Your task to perform on an android device: View the shopping cart on newegg. Search for "asus rog" on newegg, select the first entry, add it to the cart, then select checkout. Image 0: 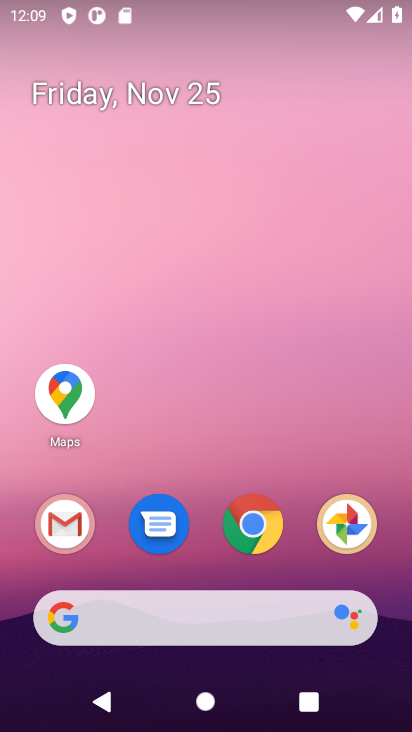
Step 0: click (249, 529)
Your task to perform on an android device: View the shopping cart on newegg. Search for "asus rog" on newegg, select the first entry, add it to the cart, then select checkout. Image 1: 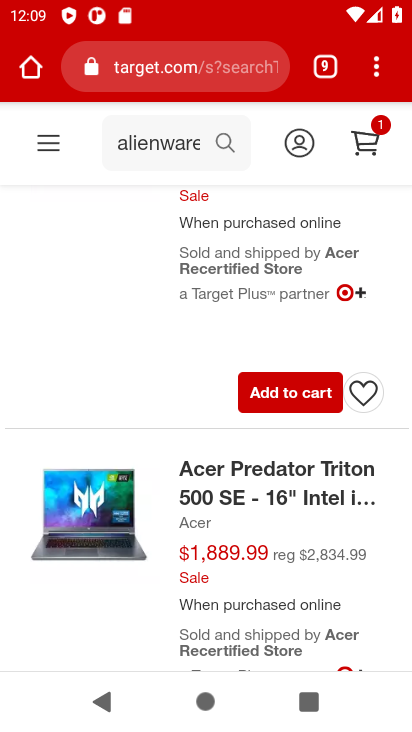
Step 1: click (158, 76)
Your task to perform on an android device: View the shopping cart on newegg. Search for "asus rog" on newegg, select the first entry, add it to the cart, then select checkout. Image 2: 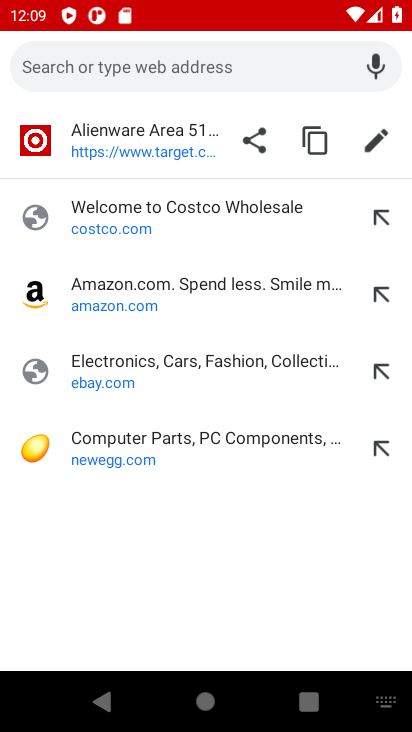
Step 2: click (91, 452)
Your task to perform on an android device: View the shopping cart on newegg. Search for "asus rog" on newegg, select the first entry, add it to the cart, then select checkout. Image 3: 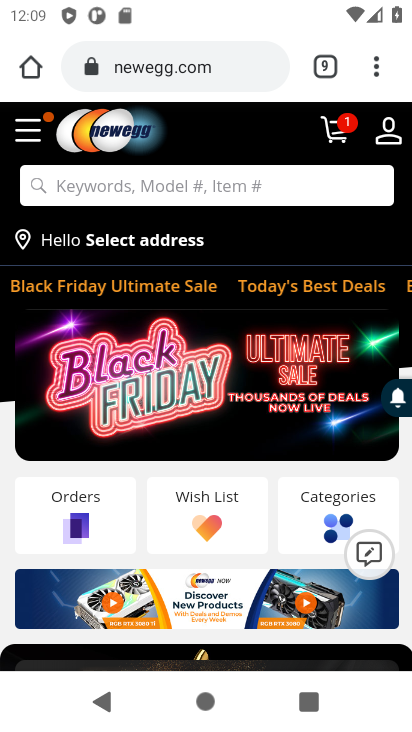
Step 3: click (339, 132)
Your task to perform on an android device: View the shopping cart on newegg. Search for "asus rog" on newegg, select the first entry, add it to the cart, then select checkout. Image 4: 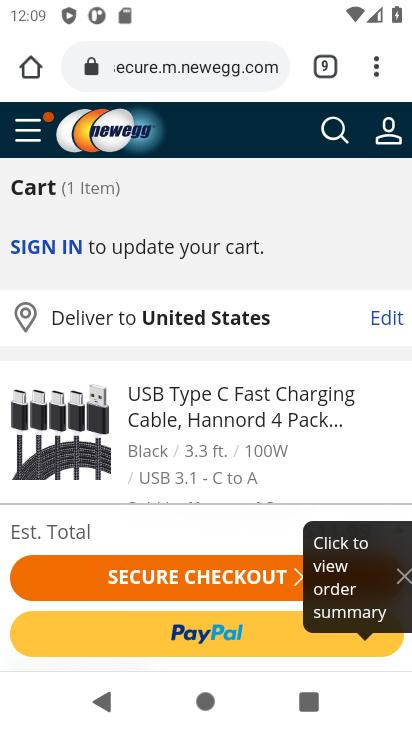
Step 4: drag from (208, 393) to (242, 190)
Your task to perform on an android device: View the shopping cart on newegg. Search for "asus rog" on newegg, select the first entry, add it to the cart, then select checkout. Image 5: 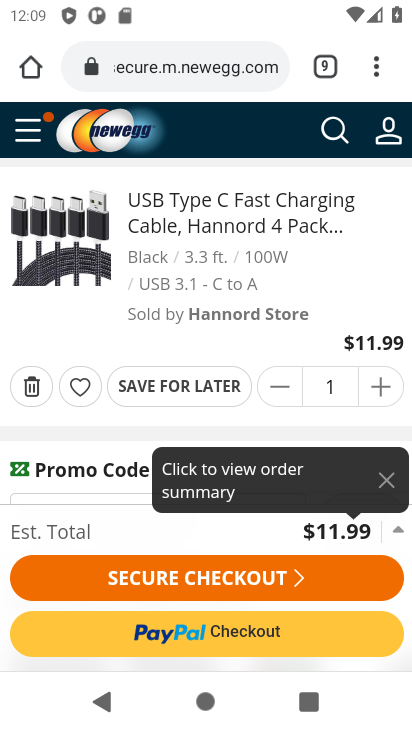
Step 5: click (336, 126)
Your task to perform on an android device: View the shopping cart on newegg. Search for "asus rog" on newegg, select the first entry, add it to the cart, then select checkout. Image 6: 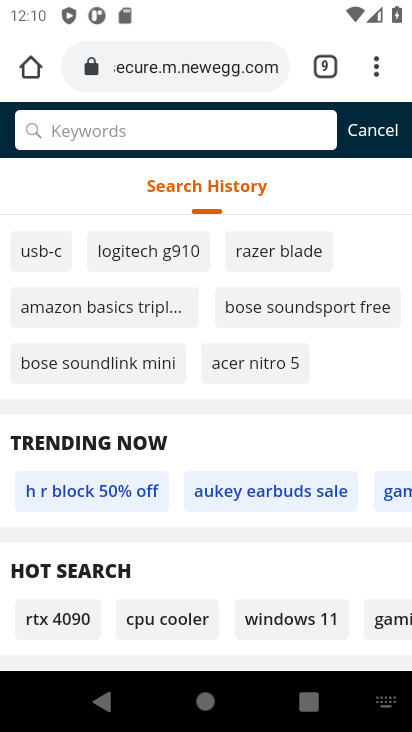
Step 6: type "asus rog"
Your task to perform on an android device: View the shopping cart on newegg. Search for "asus rog" on newegg, select the first entry, add it to the cart, then select checkout. Image 7: 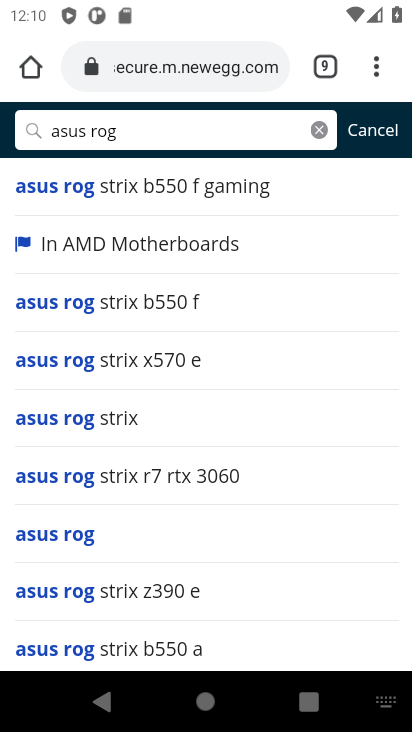
Step 7: click (67, 532)
Your task to perform on an android device: View the shopping cart on newegg. Search for "asus rog" on newegg, select the first entry, add it to the cart, then select checkout. Image 8: 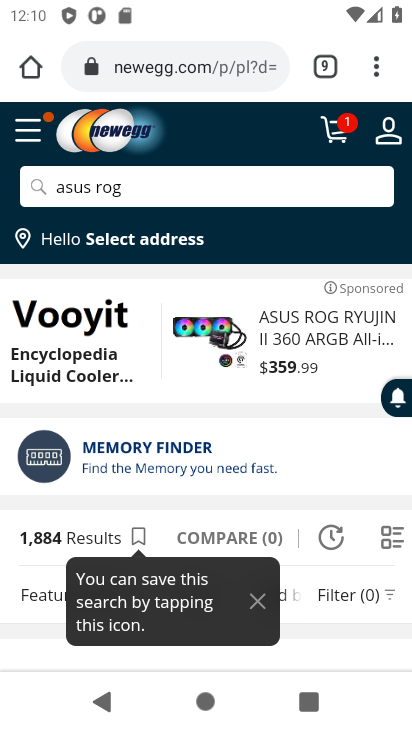
Step 8: task complete